Your task to perform on an android device: change your default location settings in chrome Image 0: 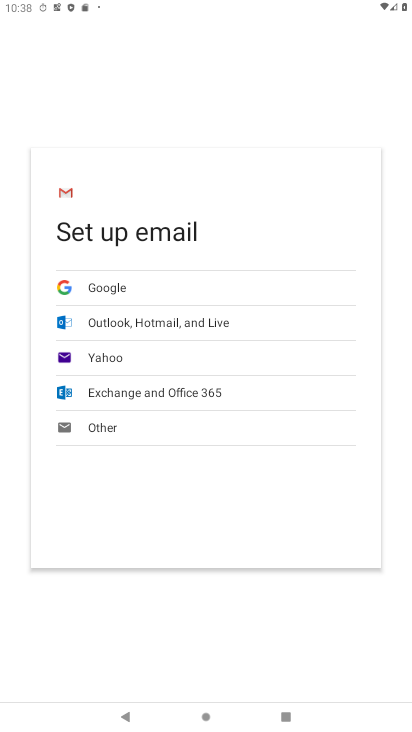
Step 0: press home button
Your task to perform on an android device: change your default location settings in chrome Image 1: 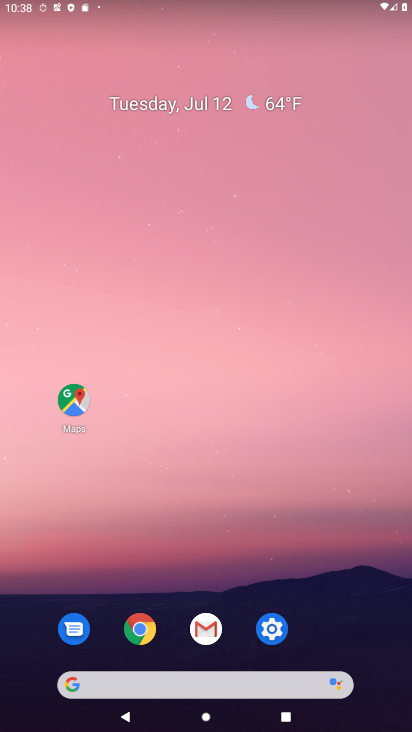
Step 1: click (154, 638)
Your task to perform on an android device: change your default location settings in chrome Image 2: 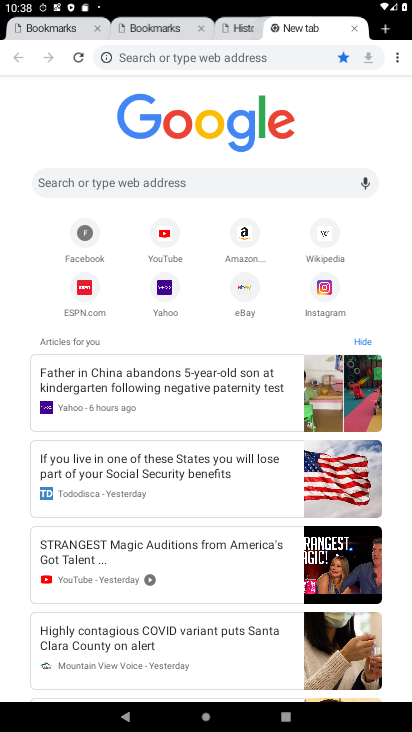
Step 2: click (398, 63)
Your task to perform on an android device: change your default location settings in chrome Image 3: 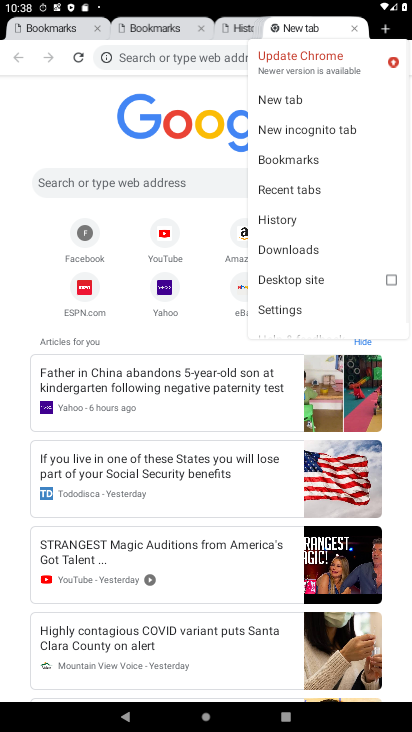
Step 3: click (280, 308)
Your task to perform on an android device: change your default location settings in chrome Image 4: 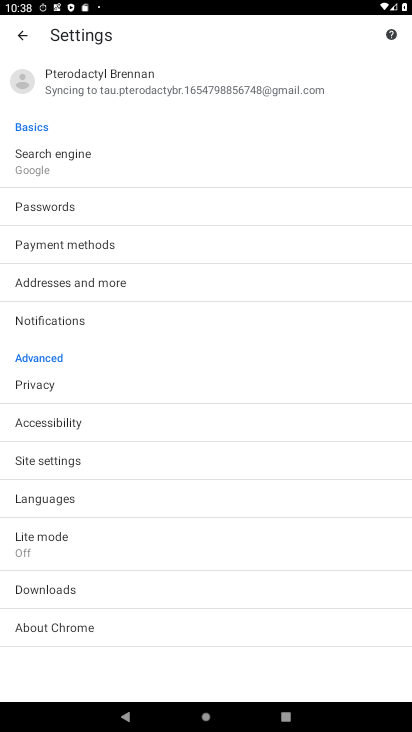
Step 4: click (67, 466)
Your task to perform on an android device: change your default location settings in chrome Image 5: 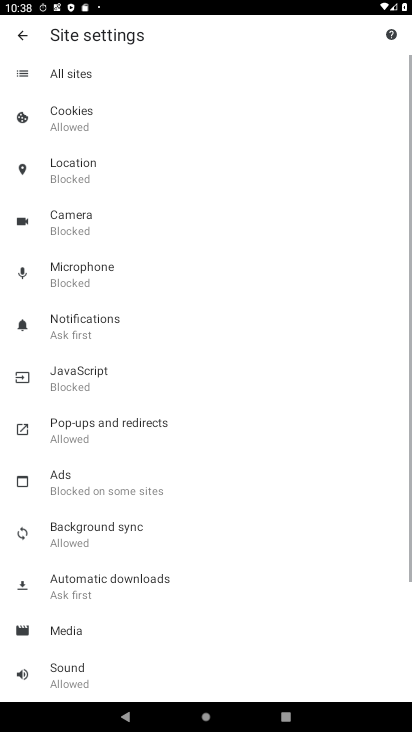
Step 5: click (126, 168)
Your task to perform on an android device: change your default location settings in chrome Image 6: 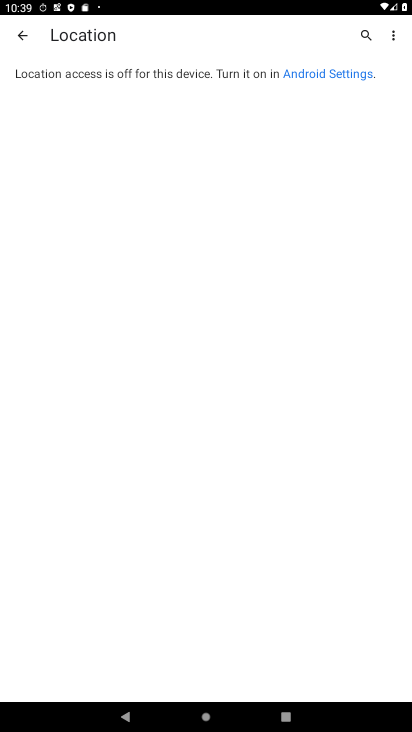
Step 6: task complete